Your task to perform on an android device: change your default location settings in chrome Image 0: 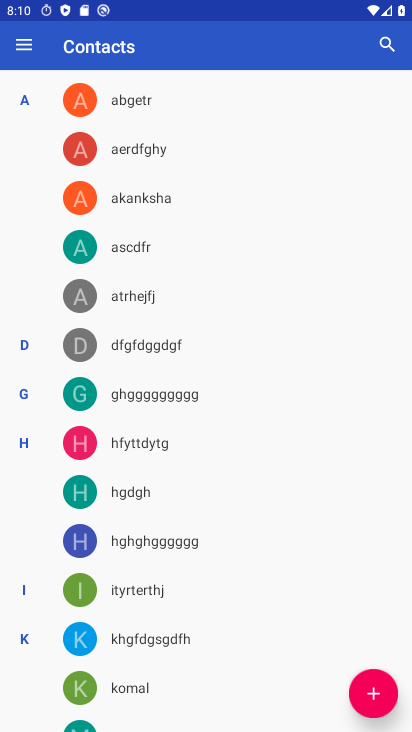
Step 0: press home button
Your task to perform on an android device: change your default location settings in chrome Image 1: 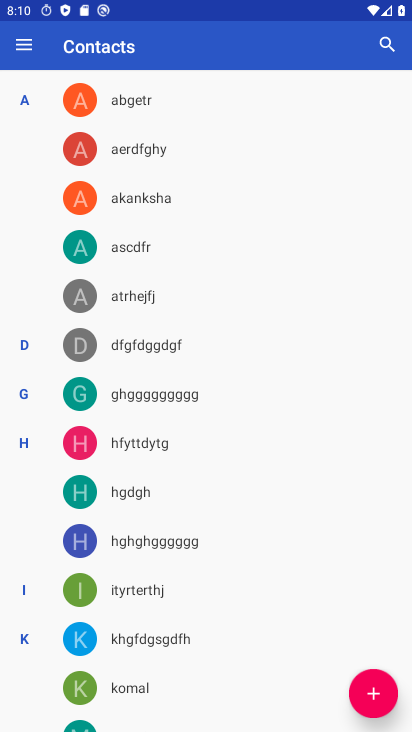
Step 1: press home button
Your task to perform on an android device: change your default location settings in chrome Image 2: 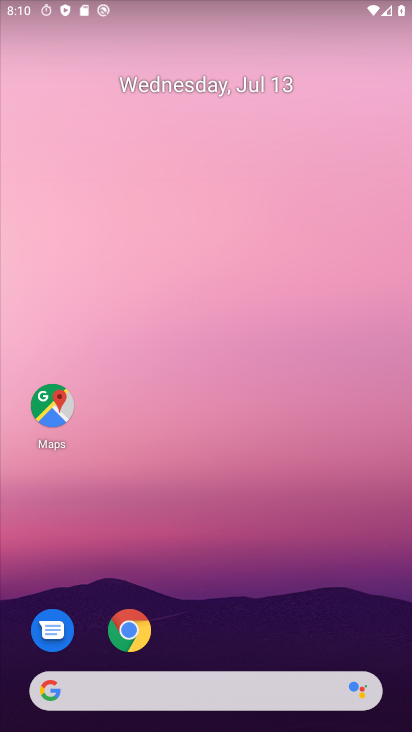
Step 2: drag from (209, 615) to (284, 44)
Your task to perform on an android device: change your default location settings in chrome Image 3: 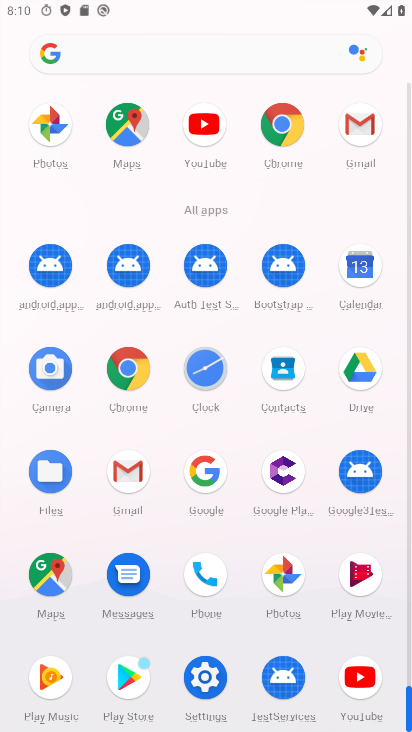
Step 3: drag from (178, 608) to (258, 252)
Your task to perform on an android device: change your default location settings in chrome Image 4: 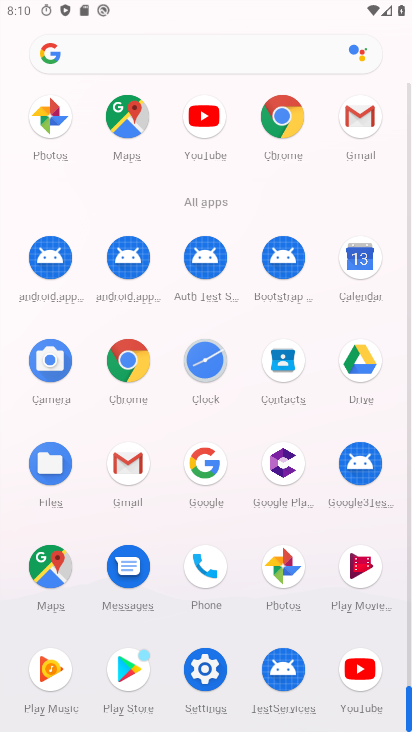
Step 4: drag from (216, 609) to (275, 390)
Your task to perform on an android device: change your default location settings in chrome Image 5: 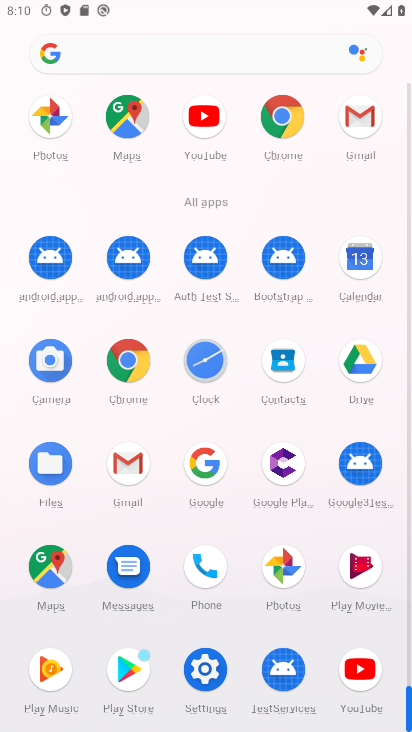
Step 5: click (283, 110)
Your task to perform on an android device: change your default location settings in chrome Image 6: 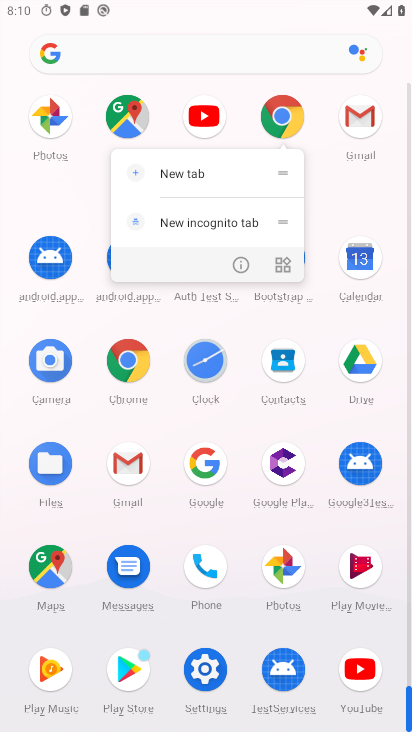
Step 6: click (238, 262)
Your task to perform on an android device: change your default location settings in chrome Image 7: 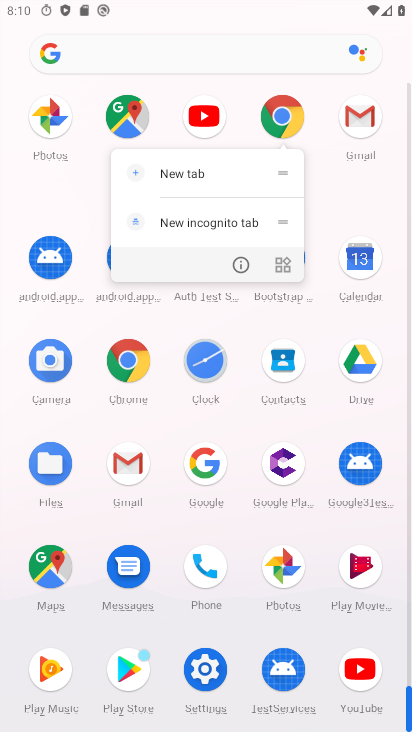
Step 7: click (238, 262)
Your task to perform on an android device: change your default location settings in chrome Image 8: 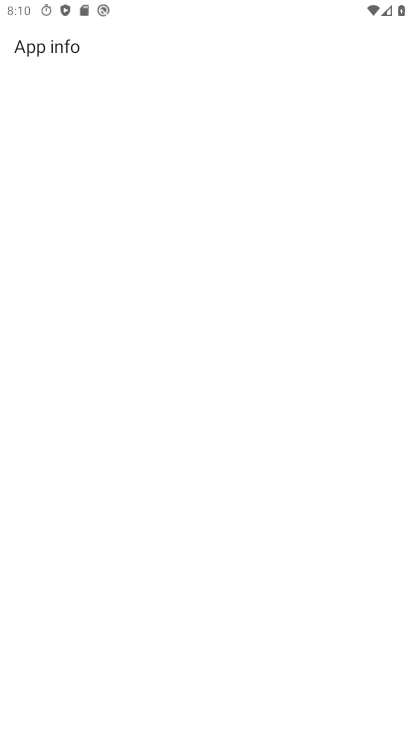
Step 8: drag from (148, 590) to (197, 198)
Your task to perform on an android device: change your default location settings in chrome Image 9: 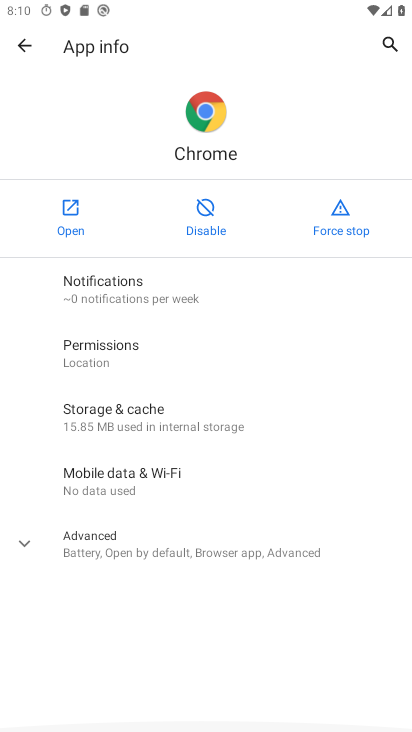
Step 9: drag from (152, 105) to (148, 643)
Your task to perform on an android device: change your default location settings in chrome Image 10: 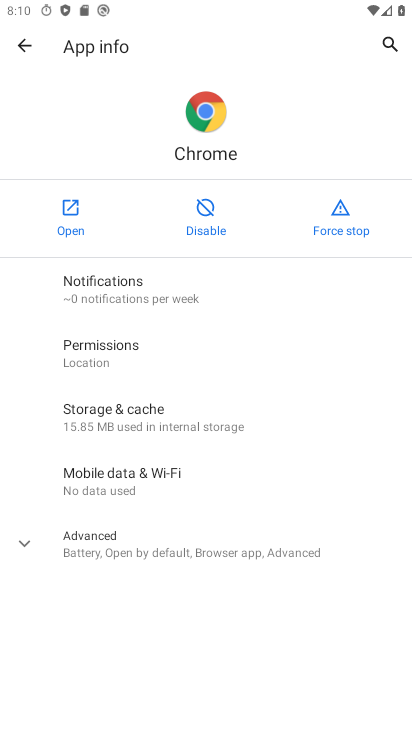
Step 10: click (72, 205)
Your task to perform on an android device: change your default location settings in chrome Image 11: 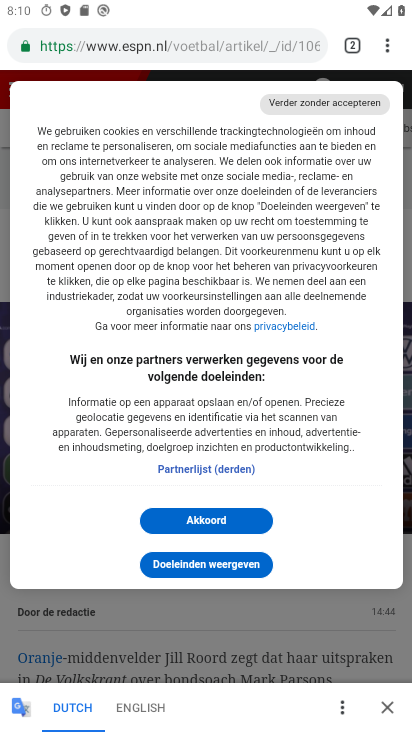
Step 11: drag from (180, 219) to (264, 715)
Your task to perform on an android device: change your default location settings in chrome Image 12: 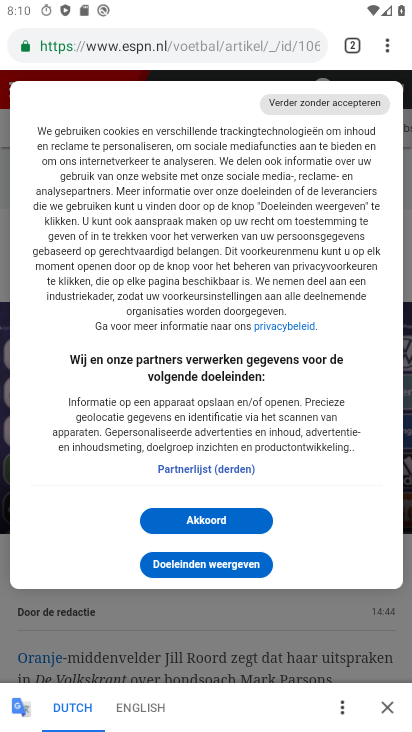
Step 12: drag from (174, 159) to (186, 524)
Your task to perform on an android device: change your default location settings in chrome Image 13: 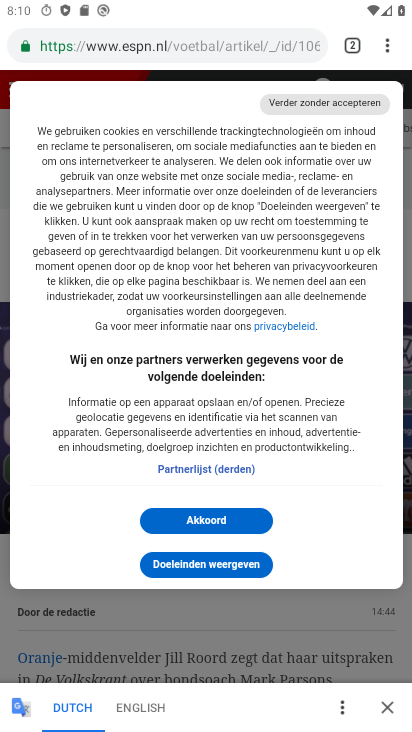
Step 13: drag from (198, 195) to (408, 584)
Your task to perform on an android device: change your default location settings in chrome Image 14: 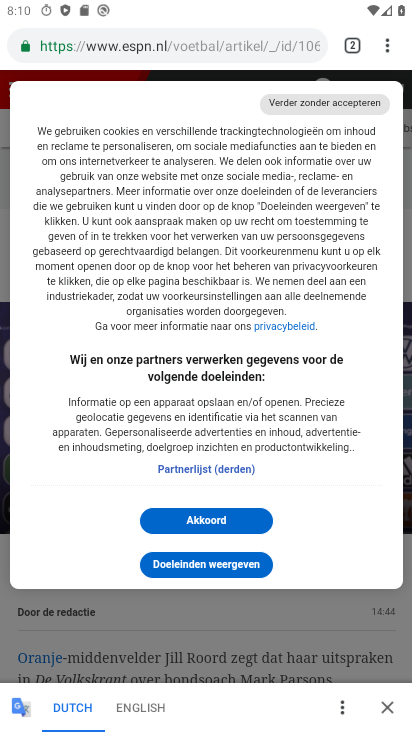
Step 14: click (393, 47)
Your task to perform on an android device: change your default location settings in chrome Image 15: 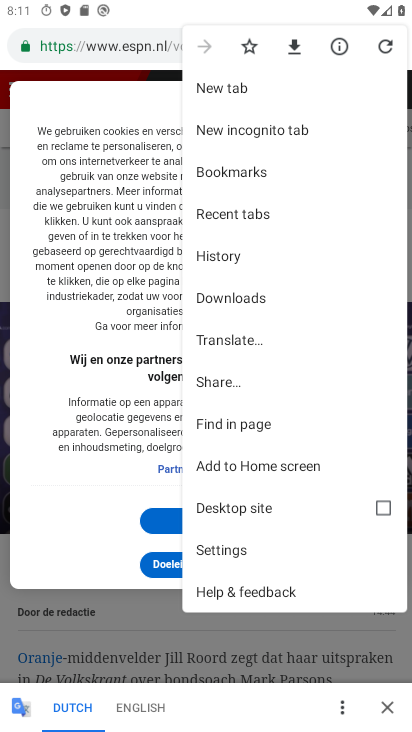
Step 15: click (223, 541)
Your task to perform on an android device: change your default location settings in chrome Image 16: 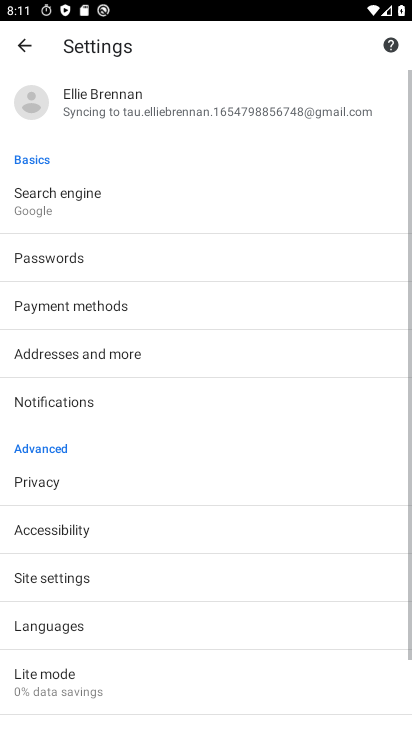
Step 16: drag from (142, 556) to (247, 162)
Your task to perform on an android device: change your default location settings in chrome Image 17: 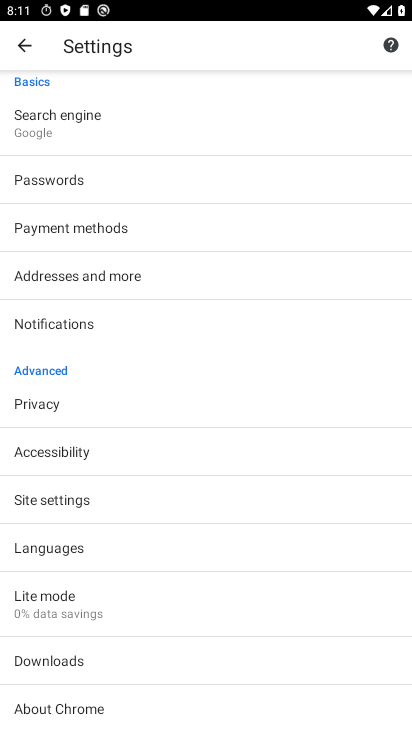
Step 17: click (122, 553)
Your task to perform on an android device: change your default location settings in chrome Image 18: 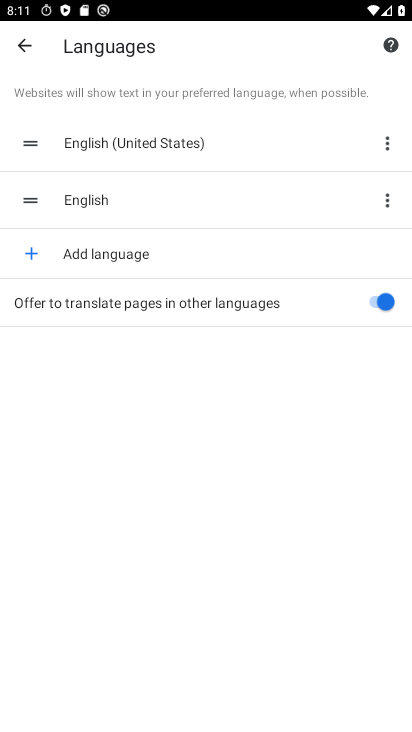
Step 18: click (31, 53)
Your task to perform on an android device: change your default location settings in chrome Image 19: 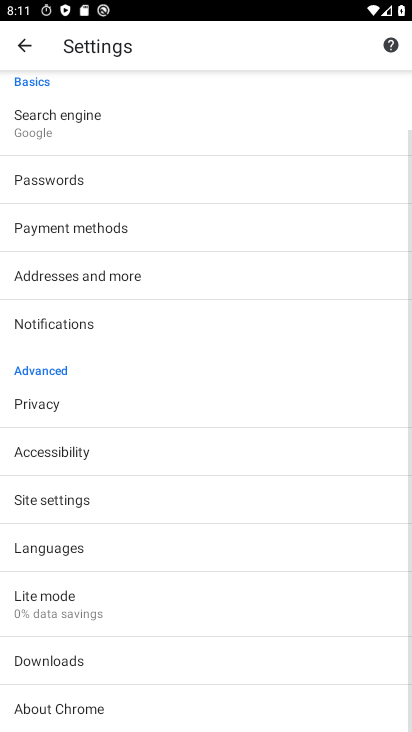
Step 19: click (95, 508)
Your task to perform on an android device: change your default location settings in chrome Image 20: 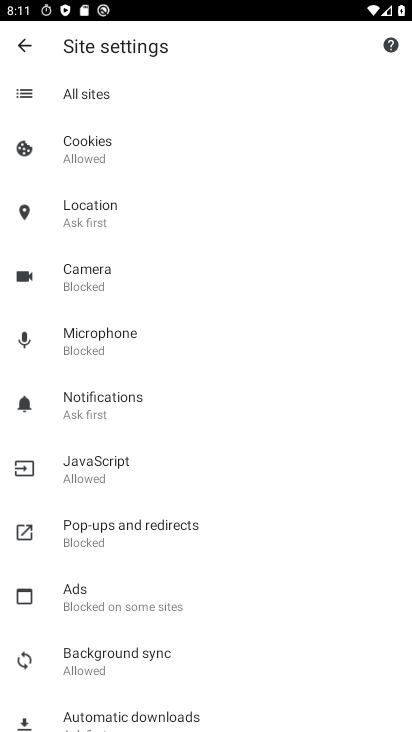
Step 20: drag from (106, 207) to (231, 583)
Your task to perform on an android device: change your default location settings in chrome Image 21: 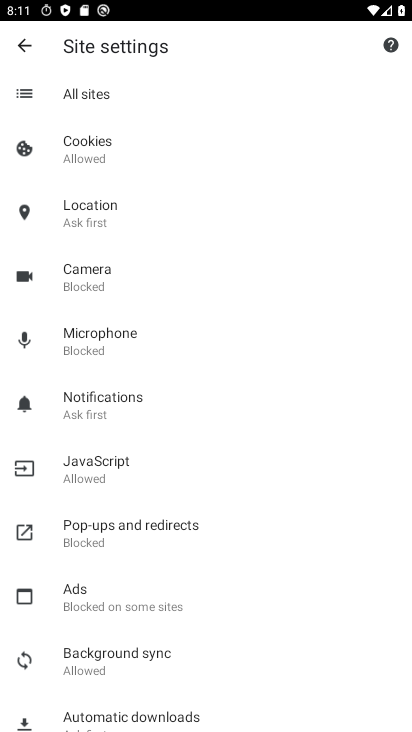
Step 21: click (134, 220)
Your task to perform on an android device: change your default location settings in chrome Image 22: 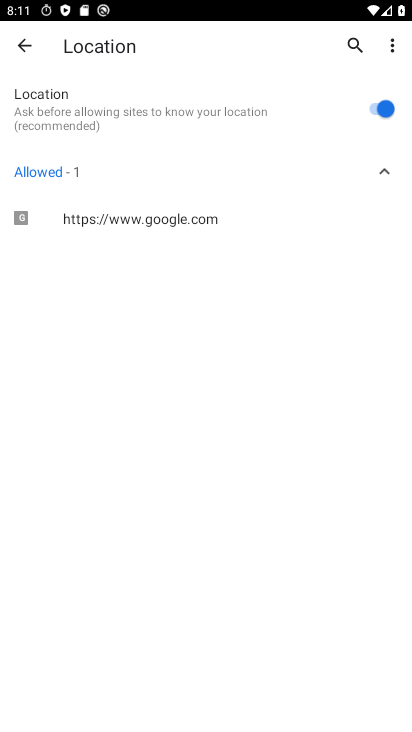
Step 22: drag from (162, 560) to (201, 282)
Your task to perform on an android device: change your default location settings in chrome Image 23: 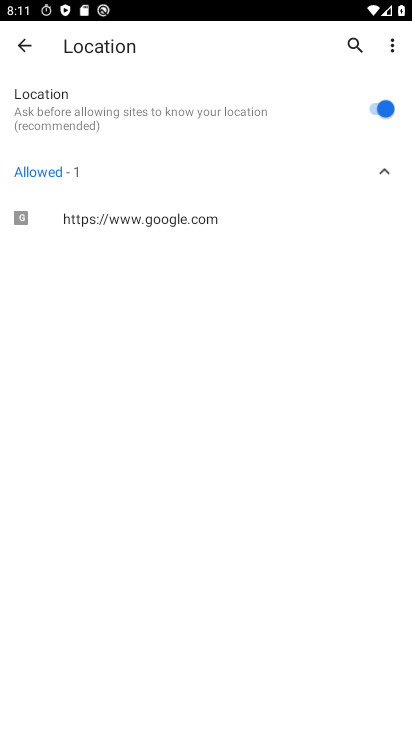
Step 23: drag from (164, 389) to (317, 711)
Your task to perform on an android device: change your default location settings in chrome Image 24: 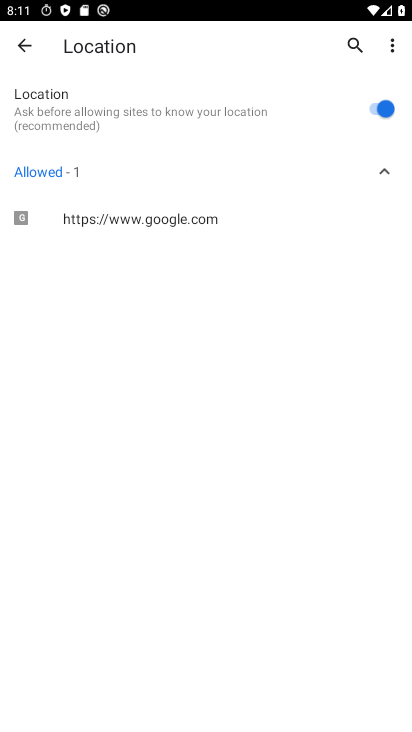
Step 24: click (374, 104)
Your task to perform on an android device: change your default location settings in chrome Image 25: 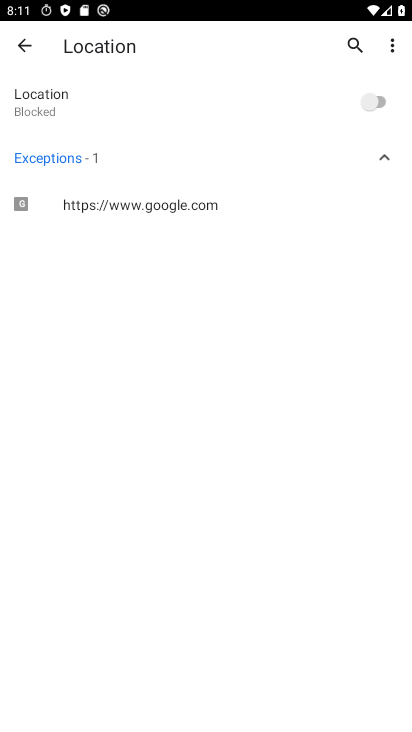
Step 25: task complete